Your task to perform on an android device: turn smart compose on in the gmail app Image 0: 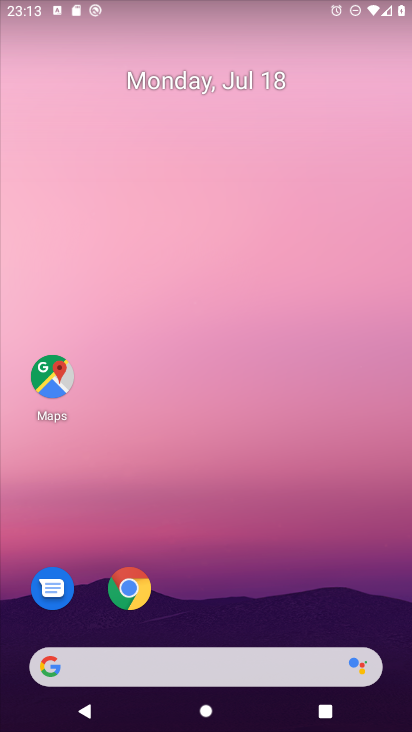
Step 0: drag from (384, 605) to (319, 121)
Your task to perform on an android device: turn smart compose on in the gmail app Image 1: 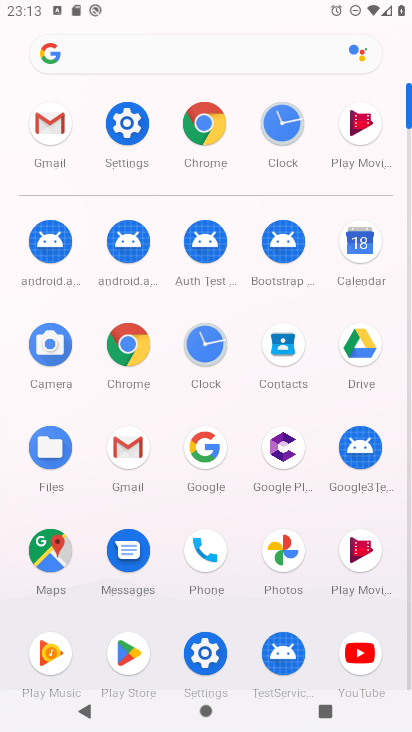
Step 1: click (125, 450)
Your task to perform on an android device: turn smart compose on in the gmail app Image 2: 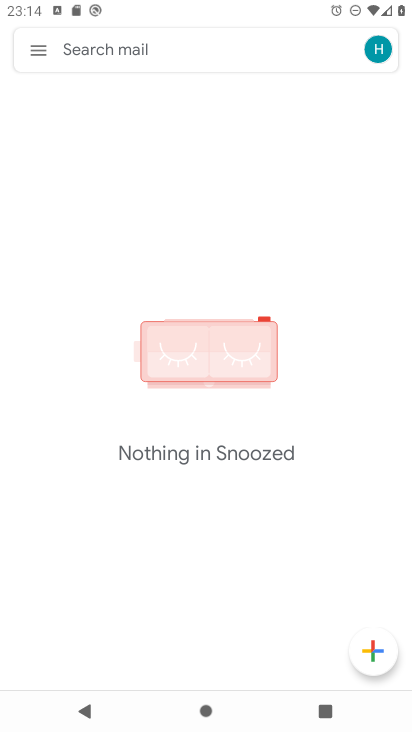
Step 2: click (35, 45)
Your task to perform on an android device: turn smart compose on in the gmail app Image 3: 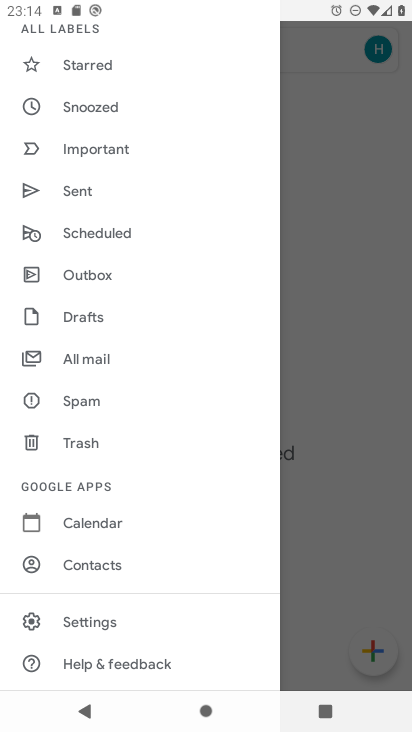
Step 3: click (89, 622)
Your task to perform on an android device: turn smart compose on in the gmail app Image 4: 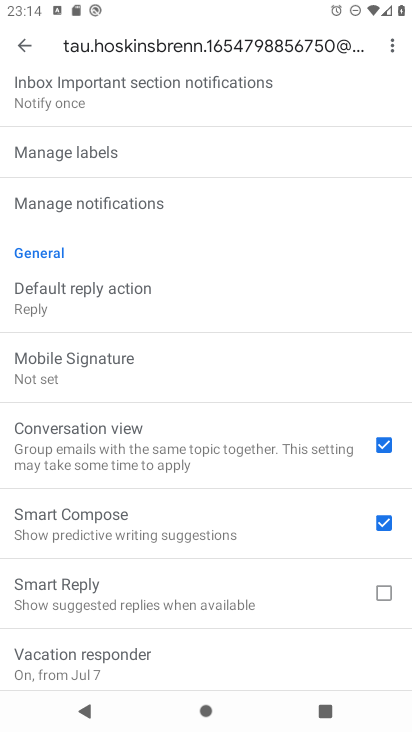
Step 4: task complete